Your task to perform on an android device: open app "Google Translate" Image 0: 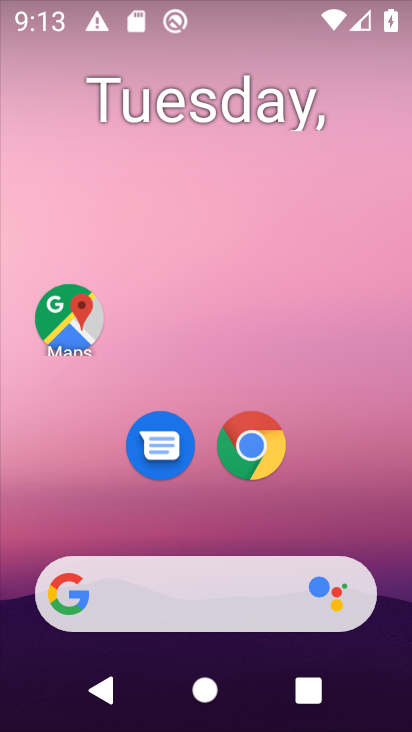
Step 0: drag from (222, 528) to (192, 95)
Your task to perform on an android device: open app "Google Translate" Image 1: 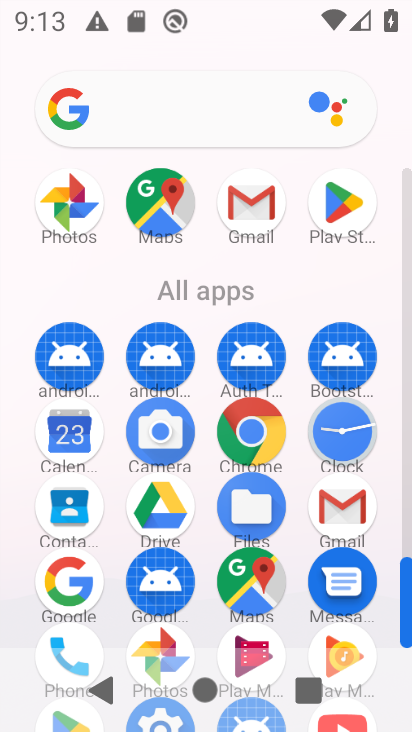
Step 1: click (342, 206)
Your task to perform on an android device: open app "Google Translate" Image 2: 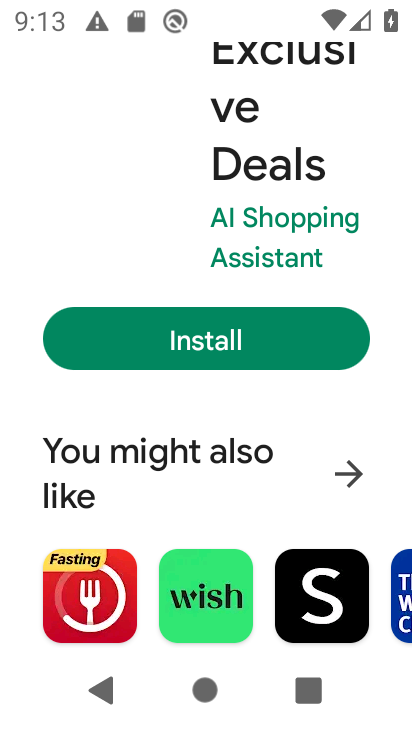
Step 2: drag from (137, 144) to (123, 589)
Your task to perform on an android device: open app "Google Translate" Image 3: 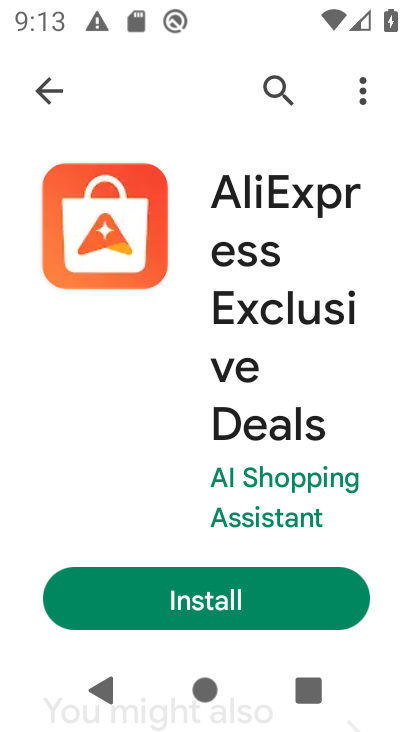
Step 3: click (52, 76)
Your task to perform on an android device: open app "Google Translate" Image 4: 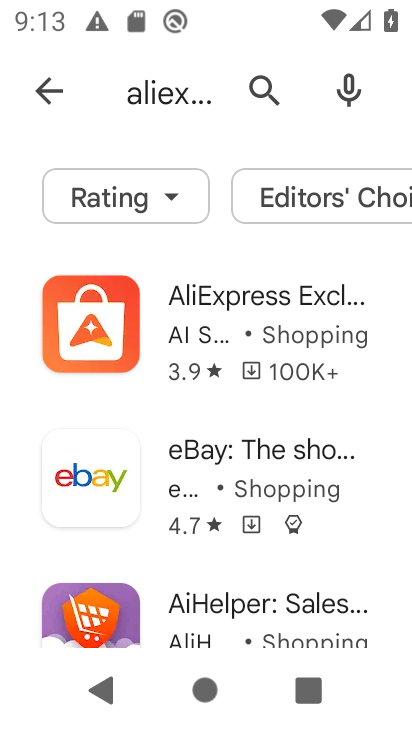
Step 4: click (78, 86)
Your task to perform on an android device: open app "Google Translate" Image 5: 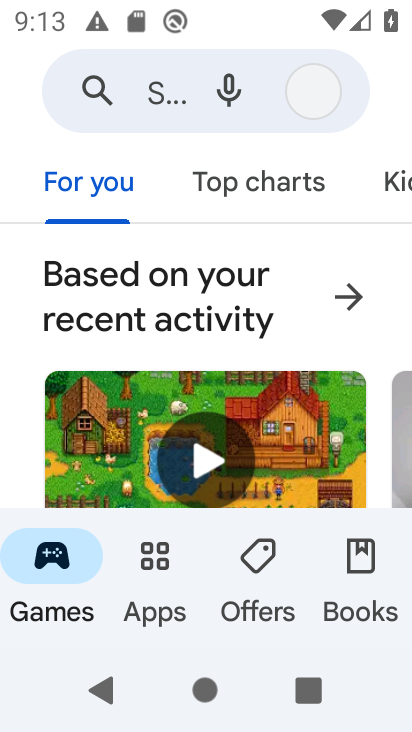
Step 5: click (162, 81)
Your task to perform on an android device: open app "Google Translate" Image 6: 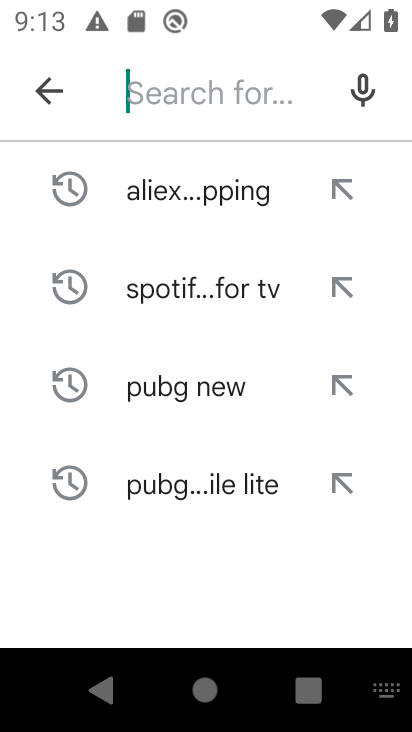
Step 6: type "Google Translate "
Your task to perform on an android device: open app "Google Translate" Image 7: 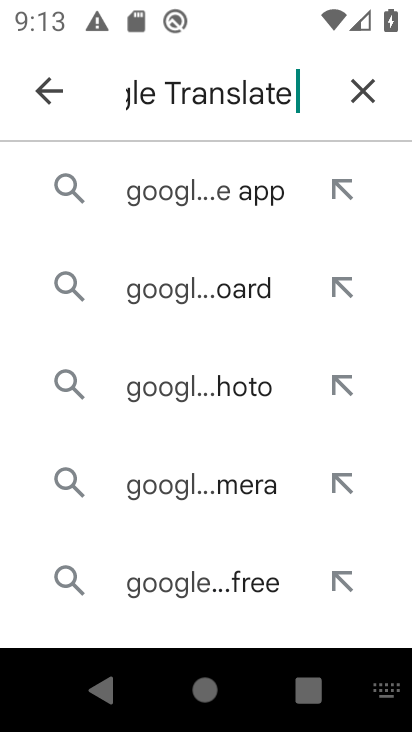
Step 7: click (168, 188)
Your task to perform on an android device: open app "Google Translate" Image 8: 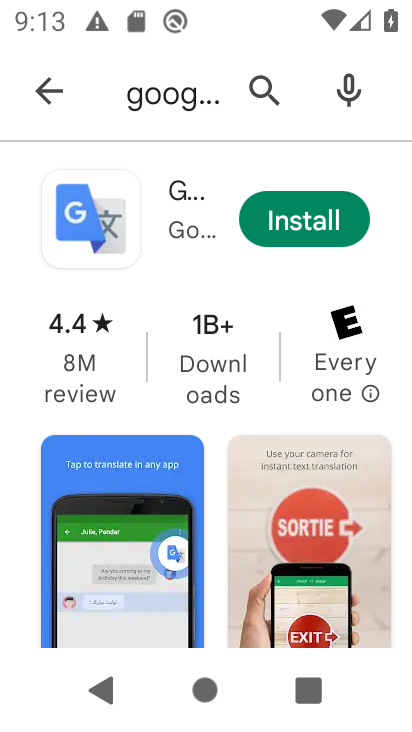
Step 8: click (316, 232)
Your task to perform on an android device: open app "Google Translate" Image 9: 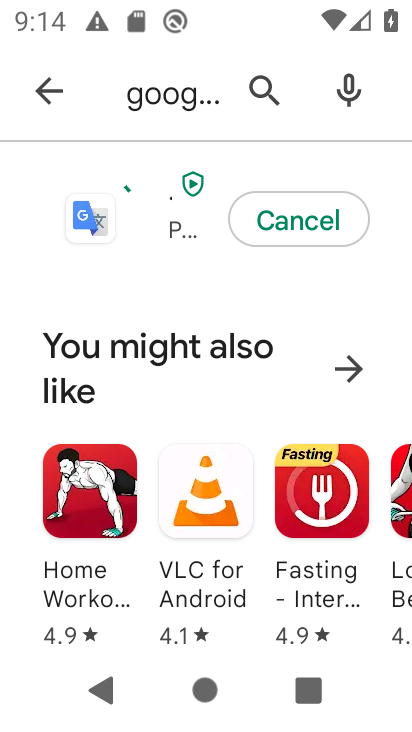
Step 9: task complete